Your task to perform on an android device: Open Maps and search for coffee Image 0: 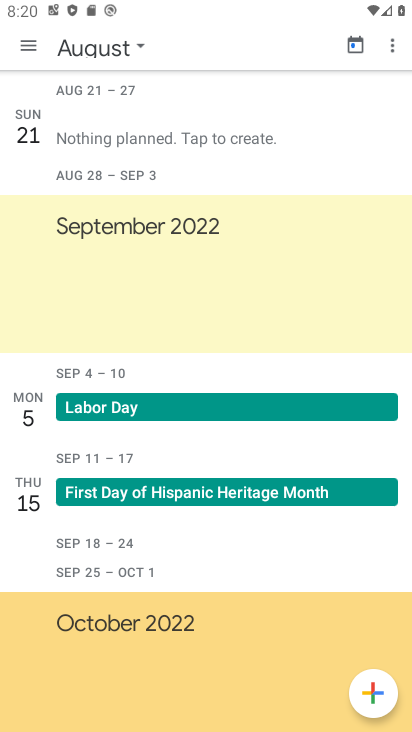
Step 0: press home button
Your task to perform on an android device: Open Maps and search for coffee Image 1: 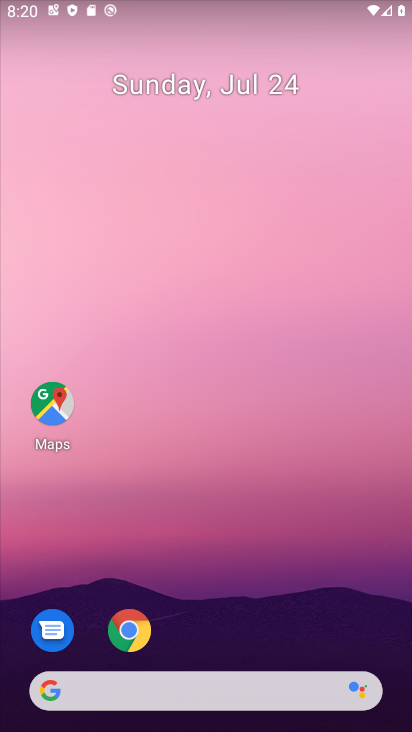
Step 1: click (34, 408)
Your task to perform on an android device: Open Maps and search for coffee Image 2: 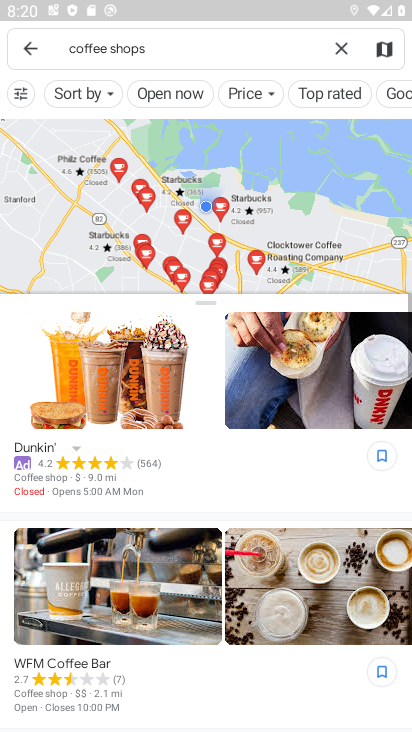
Step 2: click (334, 40)
Your task to perform on an android device: Open Maps and search for coffee Image 3: 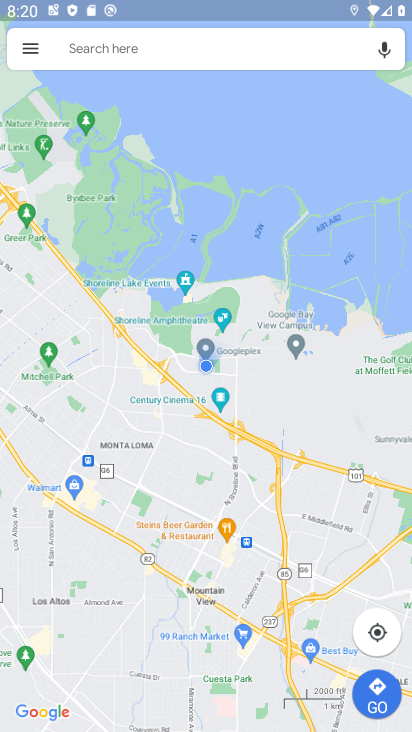
Step 3: click (166, 57)
Your task to perform on an android device: Open Maps and search for coffee Image 4: 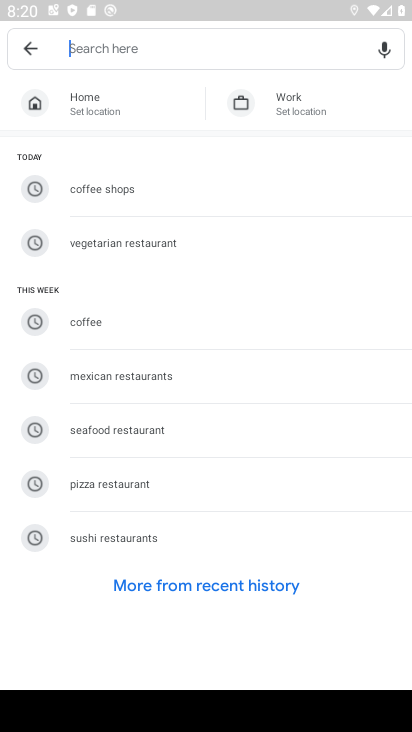
Step 4: click (153, 324)
Your task to perform on an android device: Open Maps and search for coffee Image 5: 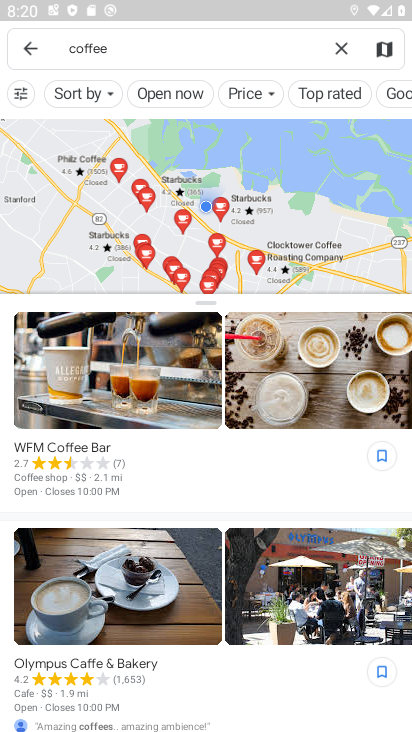
Step 5: task complete